Your task to perform on an android device: Show me recent news Image 0: 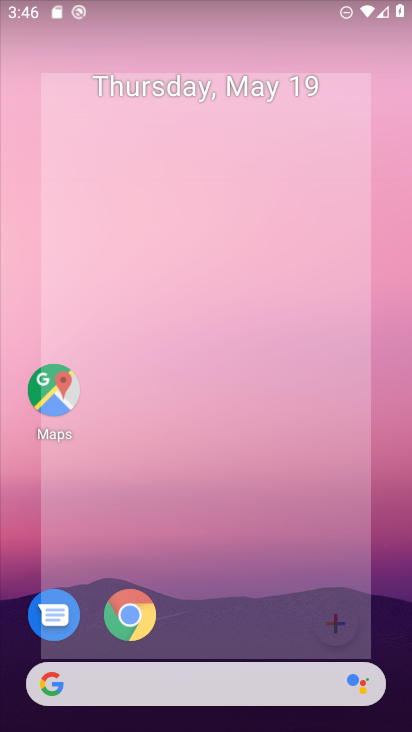
Step 0: drag from (321, 578) to (188, 18)
Your task to perform on an android device: Show me recent news Image 1: 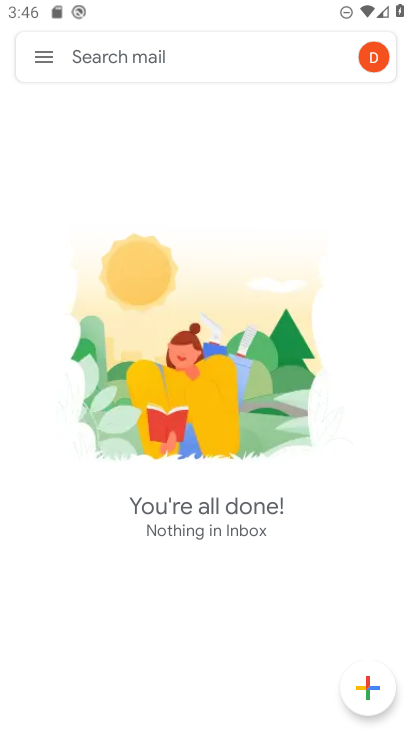
Step 1: press home button
Your task to perform on an android device: Show me recent news Image 2: 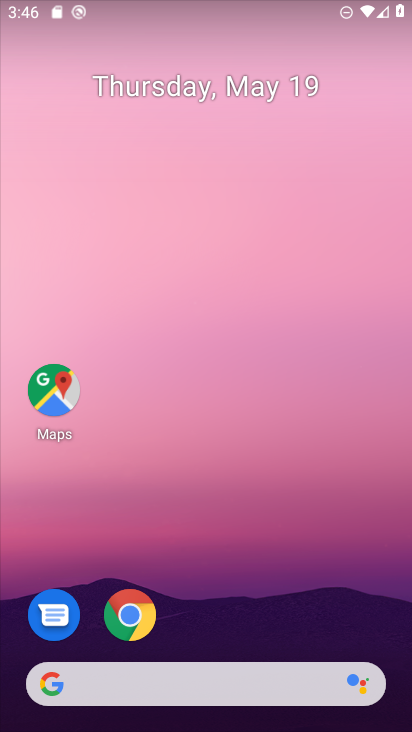
Step 2: click (211, 680)
Your task to perform on an android device: Show me recent news Image 3: 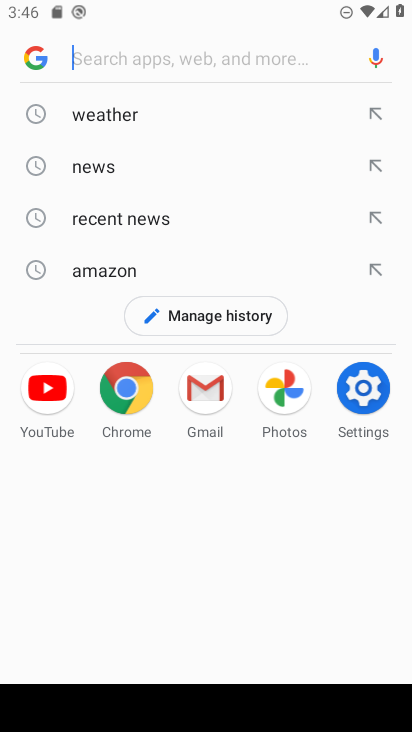
Step 3: click (151, 204)
Your task to perform on an android device: Show me recent news Image 4: 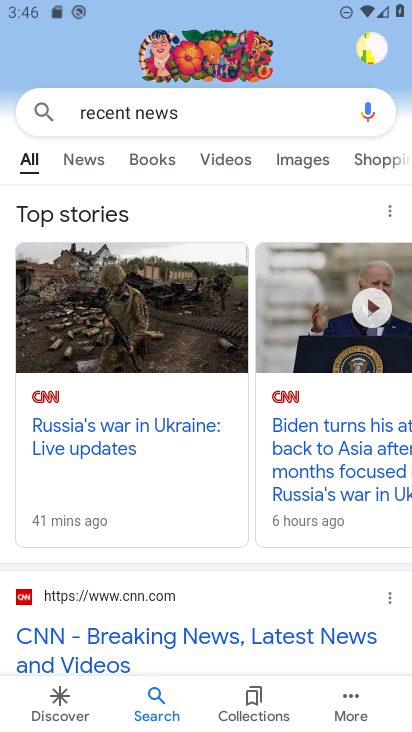
Step 4: task complete